Your task to perform on an android device: move an email to a new category in the gmail app Image 0: 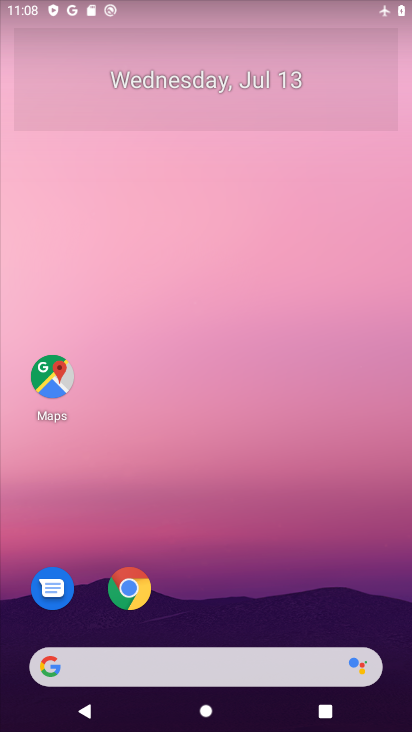
Step 0: drag from (236, 619) to (280, 87)
Your task to perform on an android device: move an email to a new category in the gmail app Image 1: 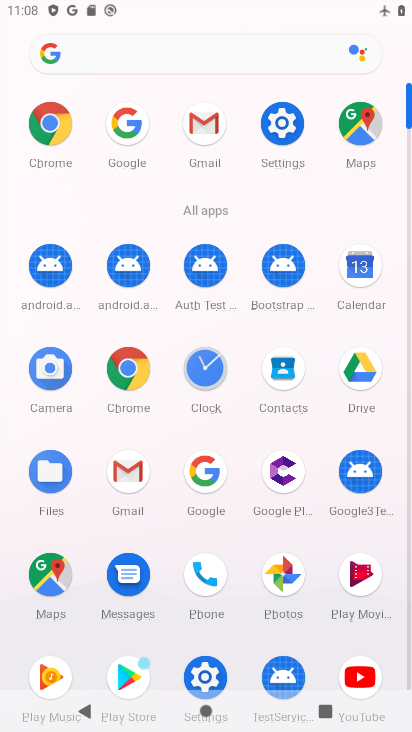
Step 1: click (199, 126)
Your task to perform on an android device: move an email to a new category in the gmail app Image 2: 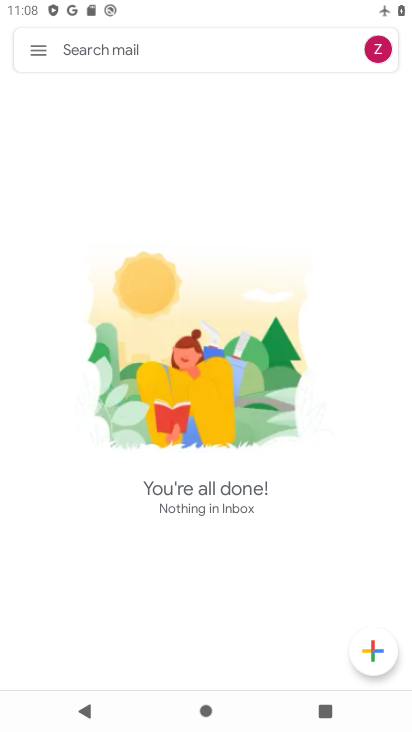
Step 2: task complete